Your task to perform on an android device: Go to Reddit.com Image 0: 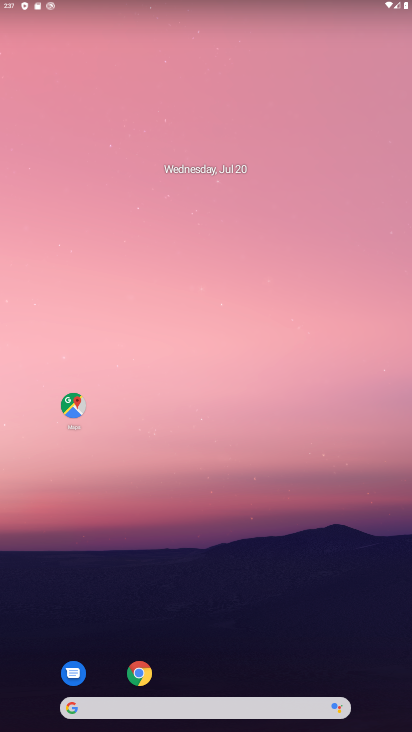
Step 0: click (151, 705)
Your task to perform on an android device: Go to Reddit.com Image 1: 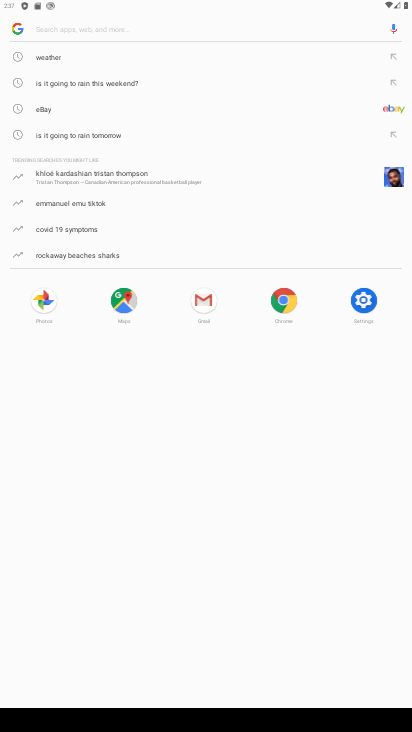
Step 1: type "Reddit.com"
Your task to perform on an android device: Go to Reddit.com Image 2: 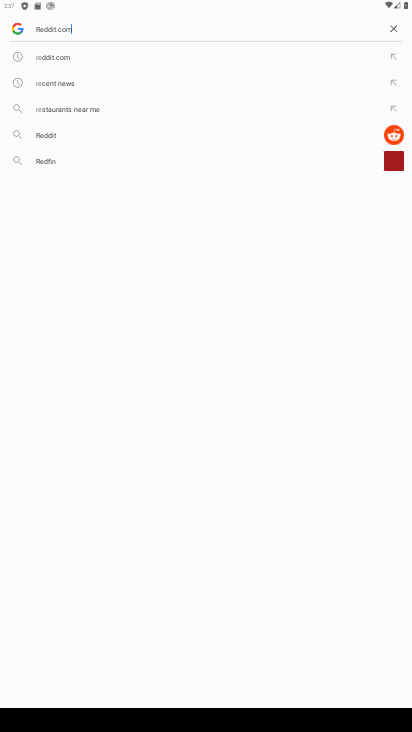
Step 2: press enter
Your task to perform on an android device: Go to Reddit.com Image 3: 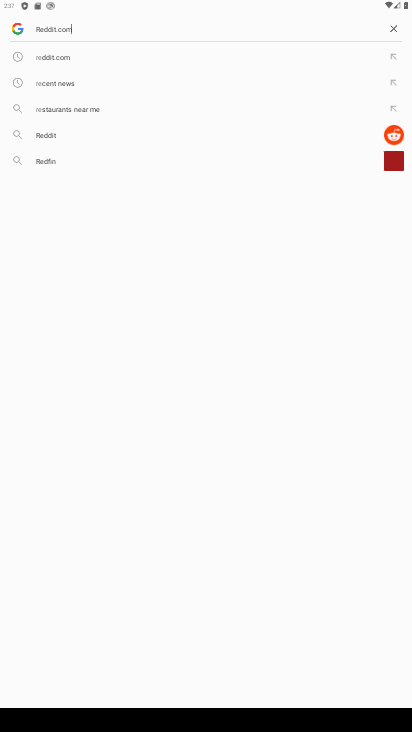
Step 3: type ""
Your task to perform on an android device: Go to Reddit.com Image 4: 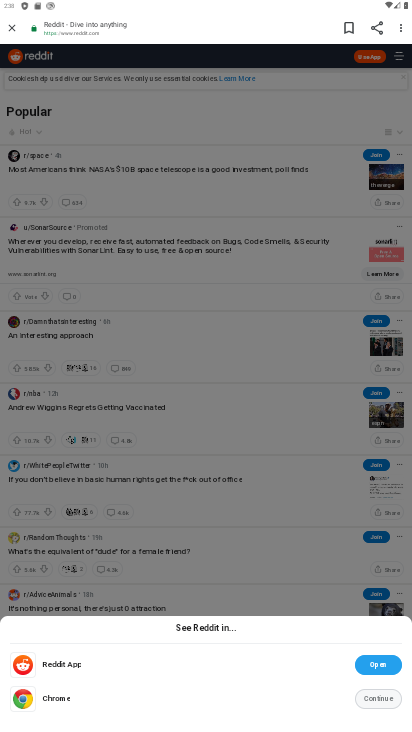
Step 4: task complete